Your task to perform on an android device: turn off wifi Image 0: 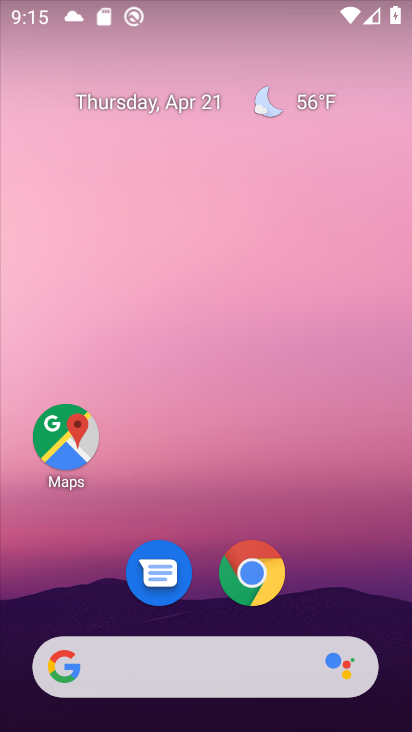
Step 0: drag from (206, 496) to (292, 140)
Your task to perform on an android device: turn off wifi Image 1: 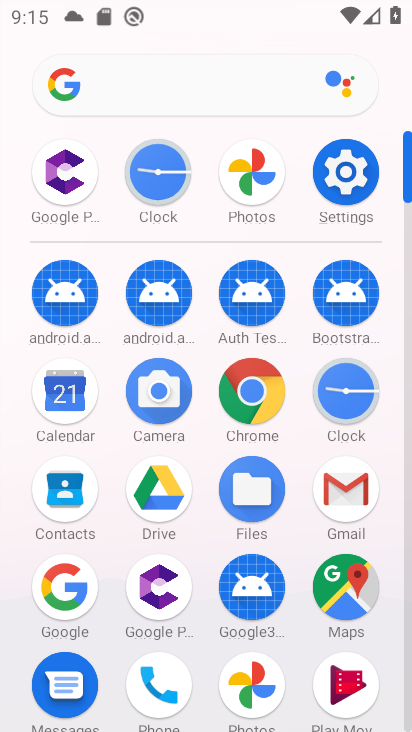
Step 1: click (361, 167)
Your task to perform on an android device: turn off wifi Image 2: 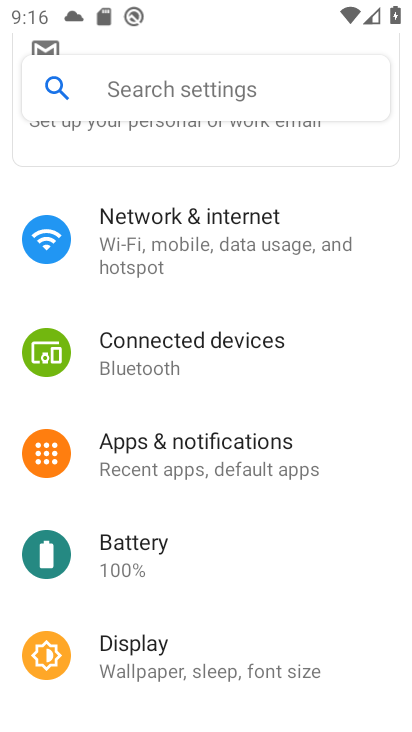
Step 2: click (159, 239)
Your task to perform on an android device: turn off wifi Image 3: 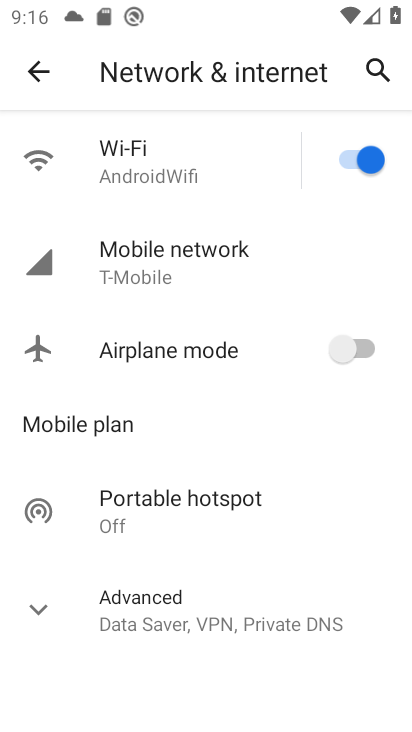
Step 3: click (345, 161)
Your task to perform on an android device: turn off wifi Image 4: 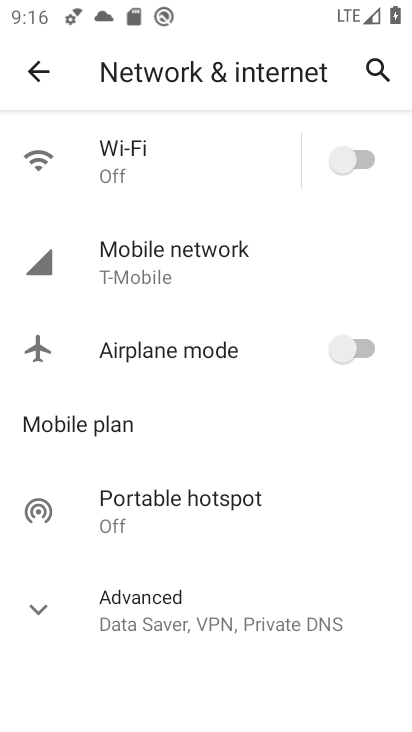
Step 4: task complete